Your task to perform on an android device: change the clock style Image 0: 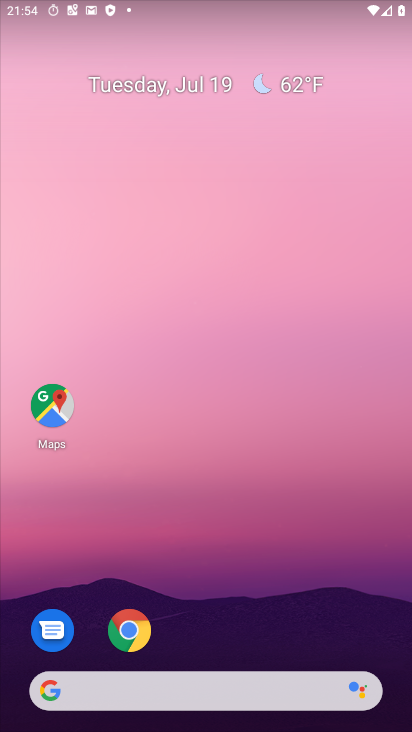
Step 0: drag from (18, 706) to (237, 155)
Your task to perform on an android device: change the clock style Image 1: 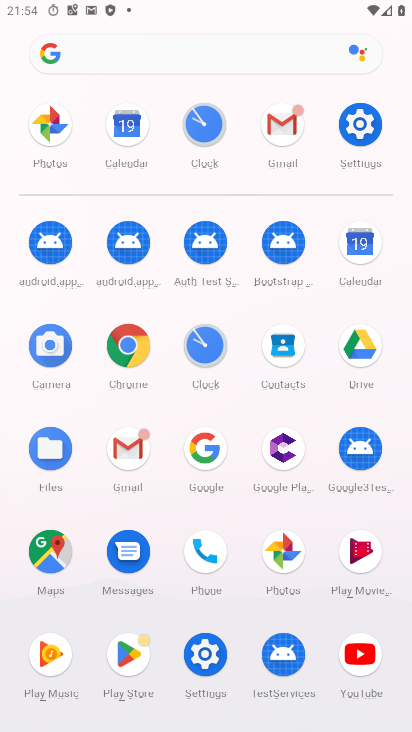
Step 1: click (217, 340)
Your task to perform on an android device: change the clock style Image 2: 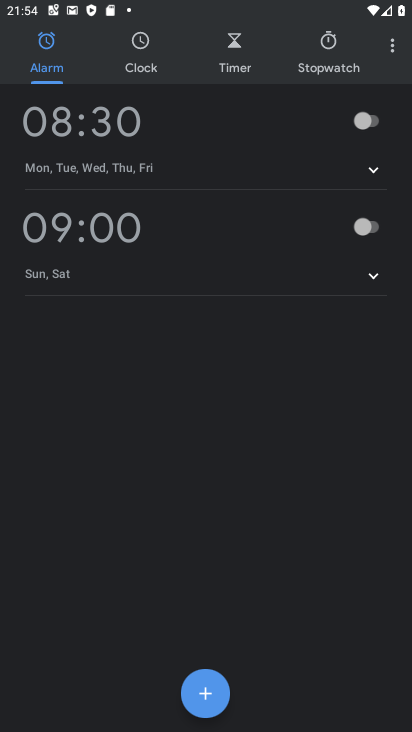
Step 2: click (135, 64)
Your task to perform on an android device: change the clock style Image 3: 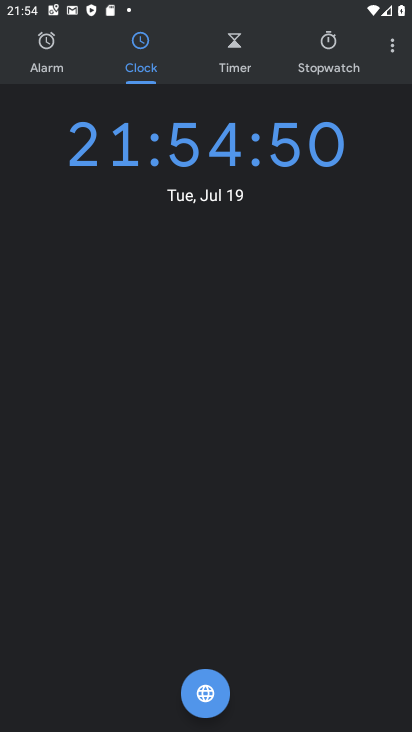
Step 3: click (389, 51)
Your task to perform on an android device: change the clock style Image 4: 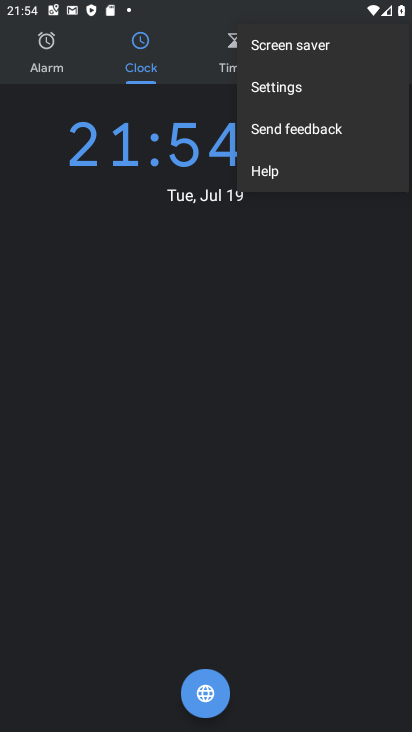
Step 4: click (272, 88)
Your task to perform on an android device: change the clock style Image 5: 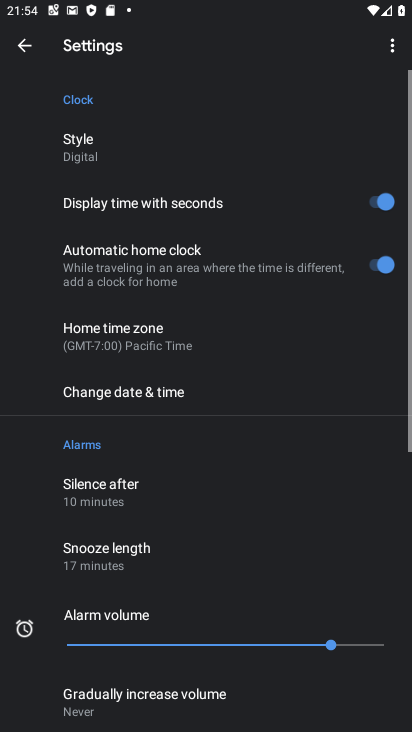
Step 5: click (82, 142)
Your task to perform on an android device: change the clock style Image 6: 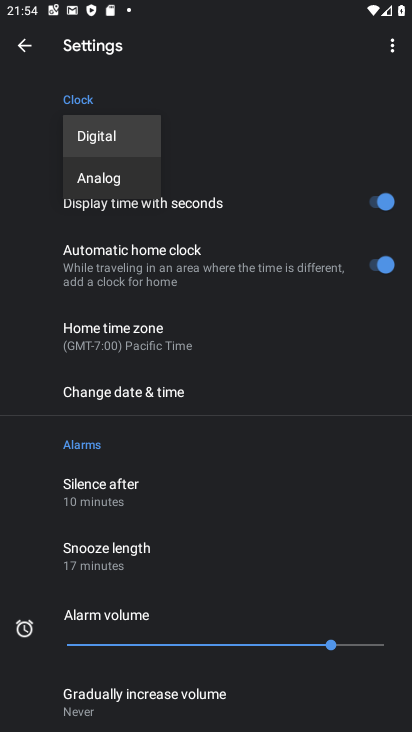
Step 6: click (91, 189)
Your task to perform on an android device: change the clock style Image 7: 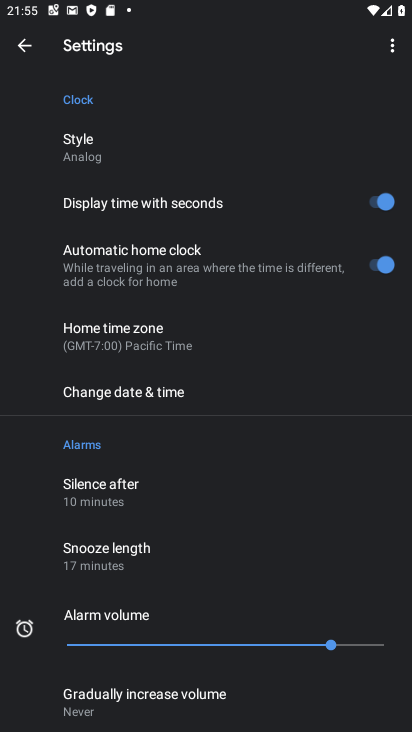
Step 7: task complete